Your task to perform on an android device: Open location settings Image 0: 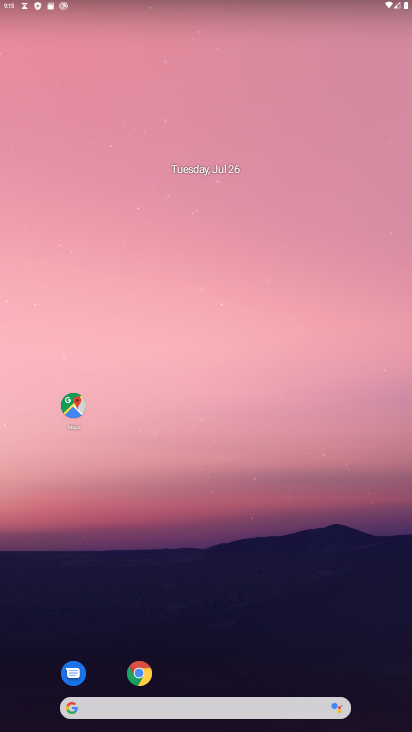
Step 0: drag from (164, 708) to (179, 227)
Your task to perform on an android device: Open location settings Image 1: 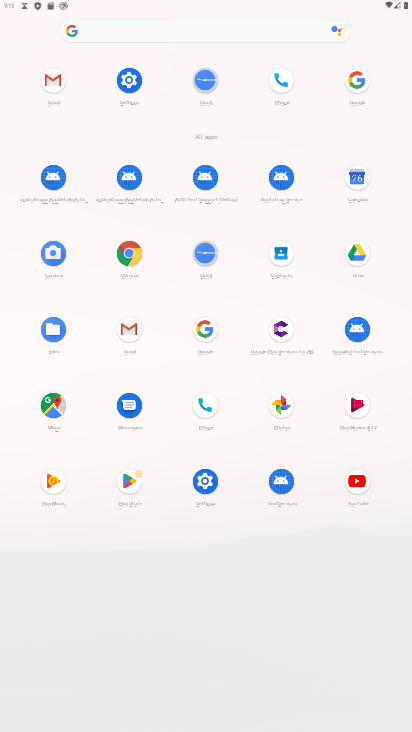
Step 1: click (128, 78)
Your task to perform on an android device: Open location settings Image 2: 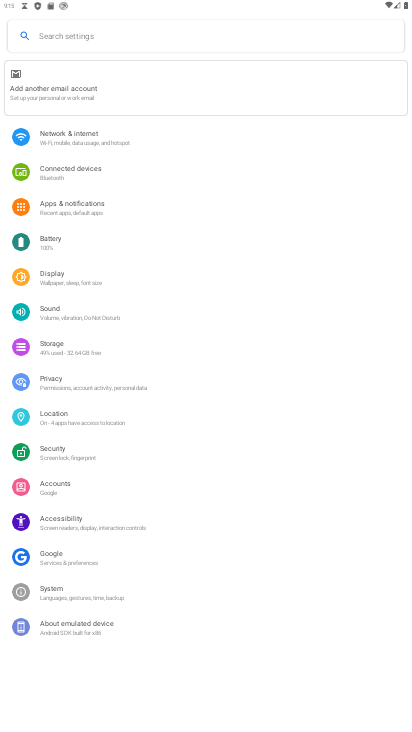
Step 2: click (54, 417)
Your task to perform on an android device: Open location settings Image 3: 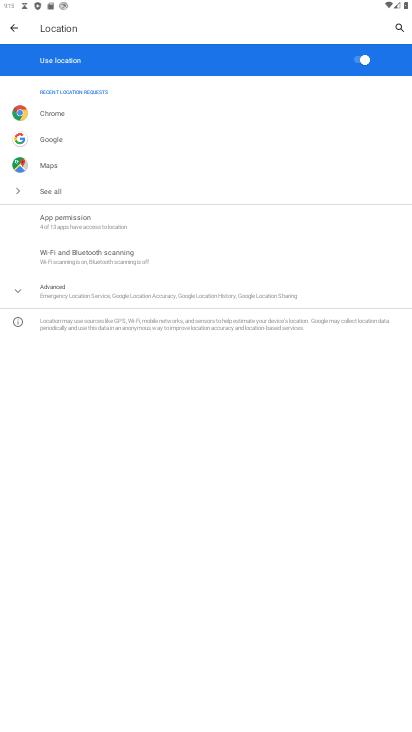
Step 3: task complete